Your task to perform on an android device: visit the assistant section in the google photos Image 0: 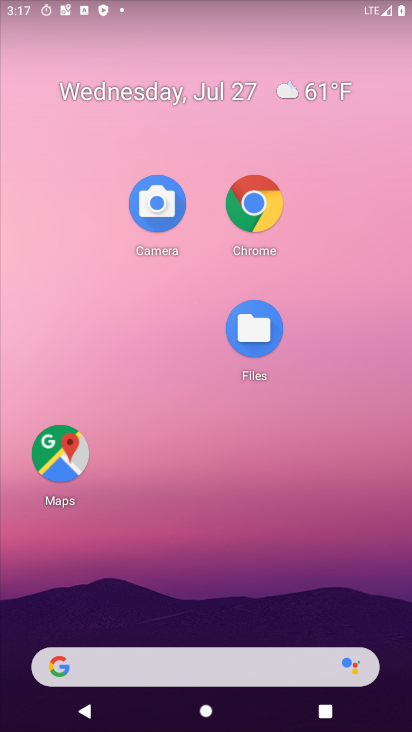
Step 0: drag from (205, 616) to (230, 95)
Your task to perform on an android device: visit the assistant section in the google photos Image 1: 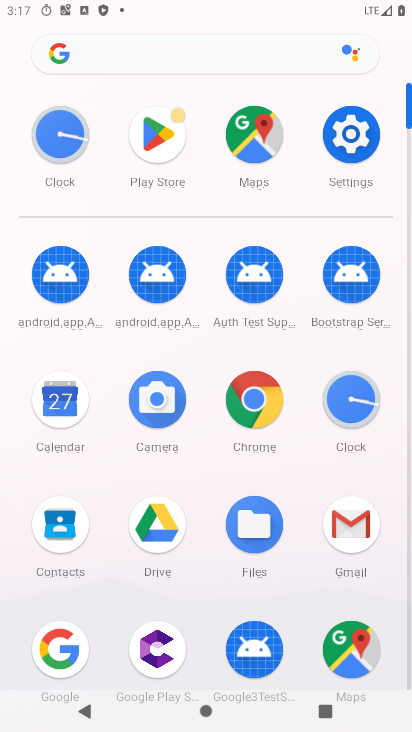
Step 1: drag from (207, 573) to (233, 232)
Your task to perform on an android device: visit the assistant section in the google photos Image 2: 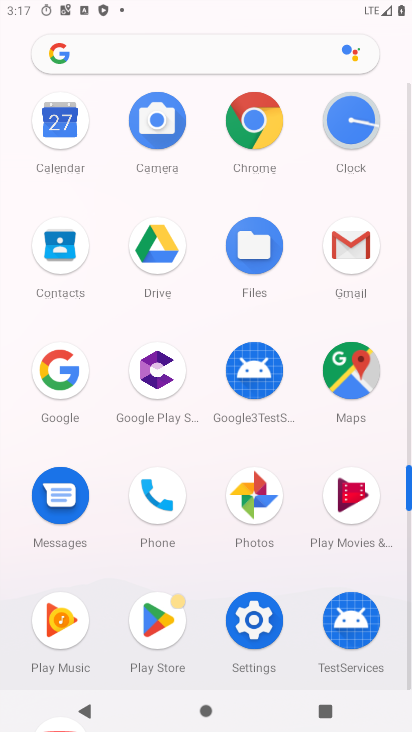
Step 2: click (268, 532)
Your task to perform on an android device: visit the assistant section in the google photos Image 3: 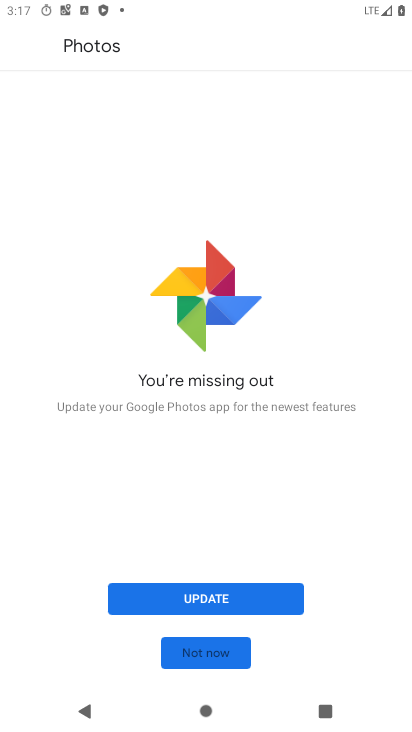
Step 3: click (199, 649)
Your task to perform on an android device: visit the assistant section in the google photos Image 4: 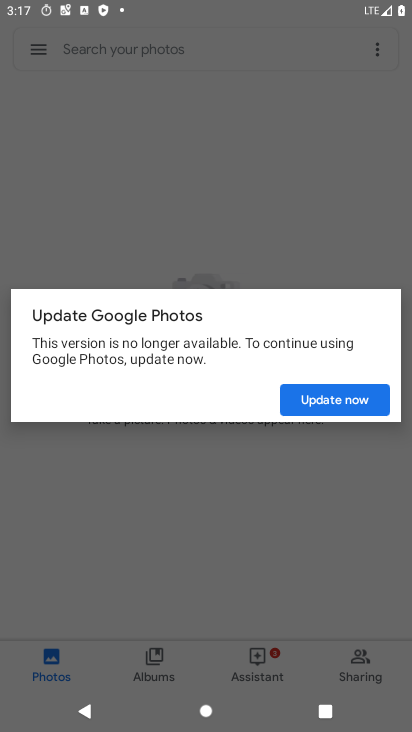
Step 4: click (316, 402)
Your task to perform on an android device: visit the assistant section in the google photos Image 5: 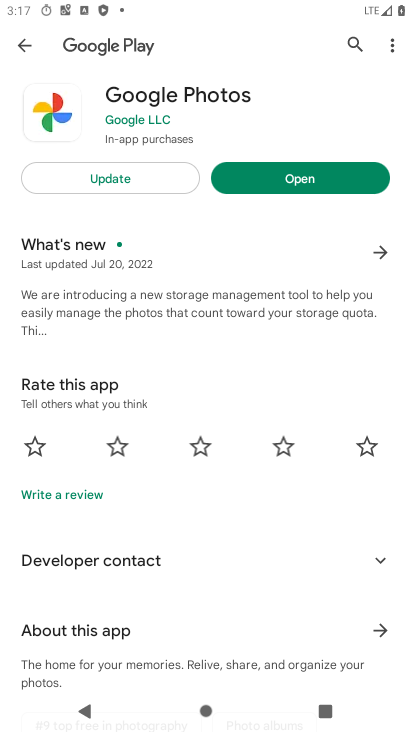
Step 5: click (287, 180)
Your task to perform on an android device: visit the assistant section in the google photos Image 6: 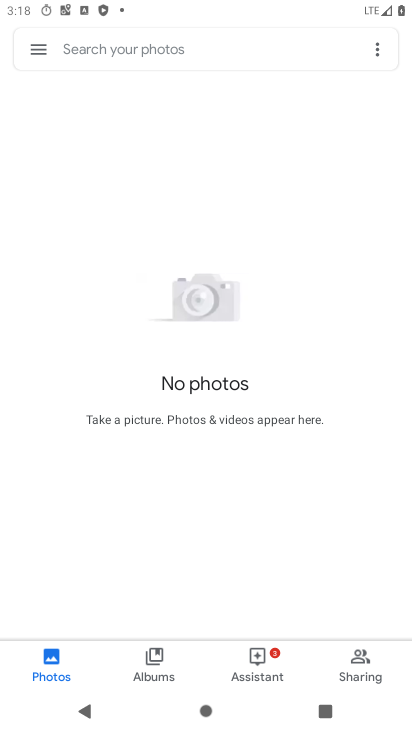
Step 6: click (260, 664)
Your task to perform on an android device: visit the assistant section in the google photos Image 7: 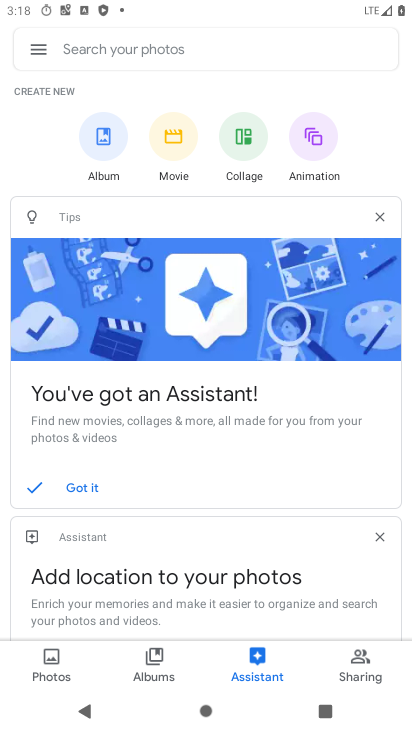
Step 7: task complete